Your task to perform on an android device: Go to Google maps Image 0: 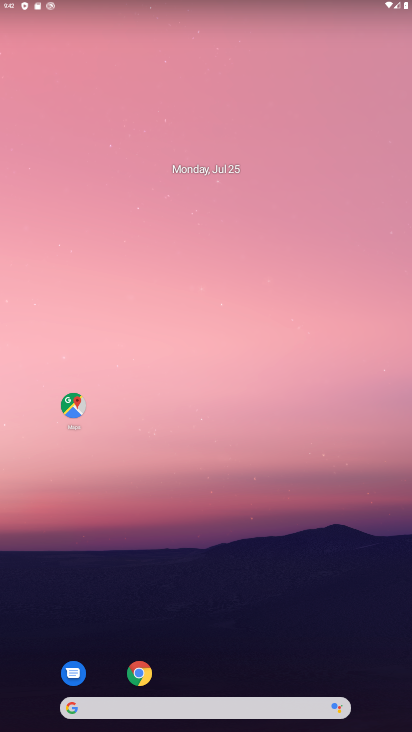
Step 0: drag from (274, 630) to (375, 27)
Your task to perform on an android device: Go to Google maps Image 1: 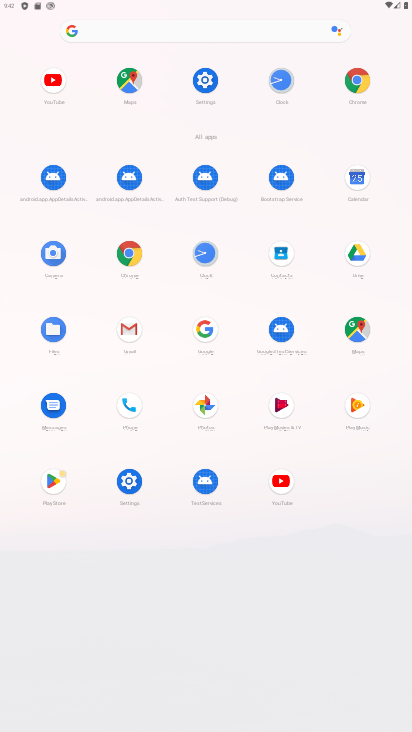
Step 1: click (208, 328)
Your task to perform on an android device: Go to Google maps Image 2: 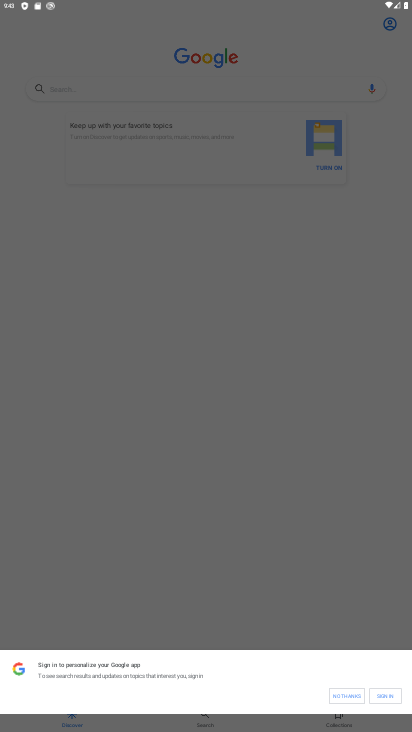
Step 2: task complete